Your task to perform on an android device: Go to settings Image 0: 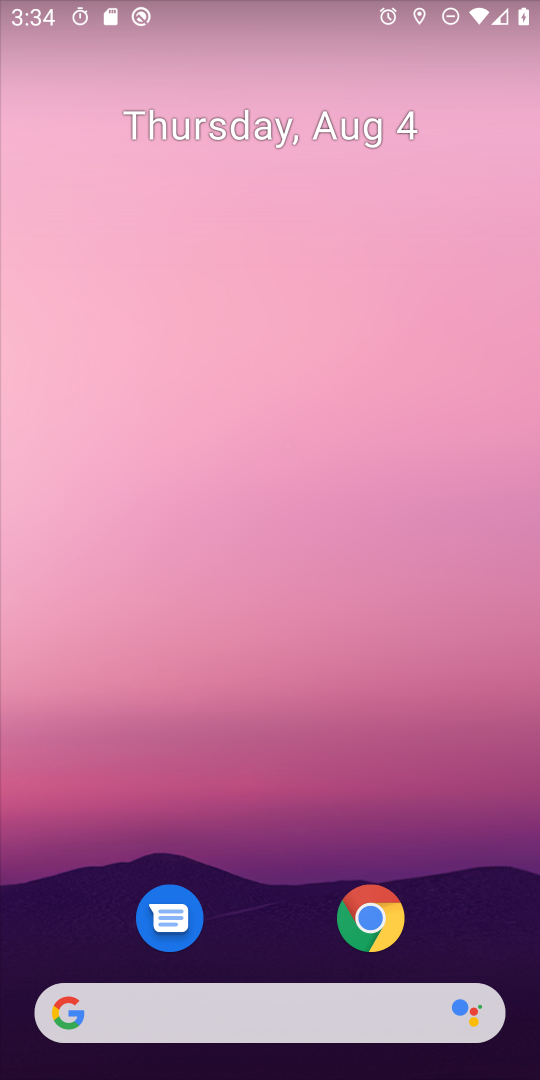
Step 0: drag from (295, 917) to (221, 337)
Your task to perform on an android device: Go to settings Image 1: 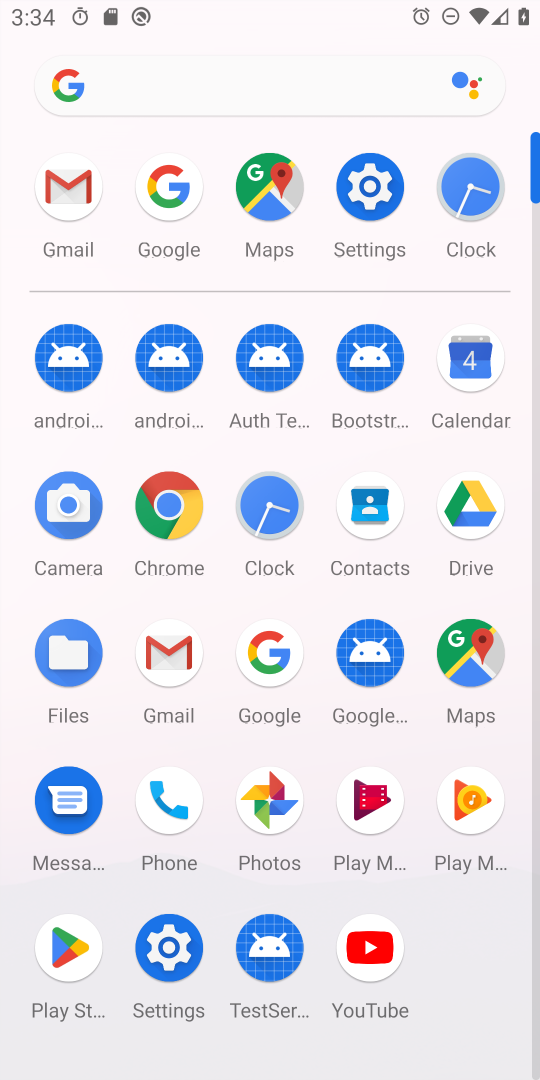
Step 1: click (378, 201)
Your task to perform on an android device: Go to settings Image 2: 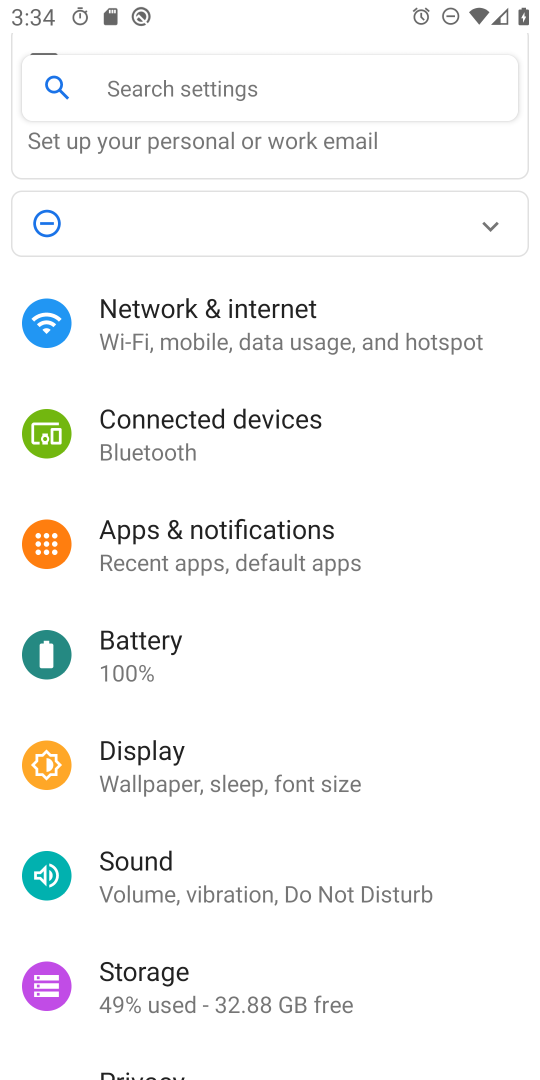
Step 2: task complete